Your task to perform on an android device: turn off priority inbox in the gmail app Image 0: 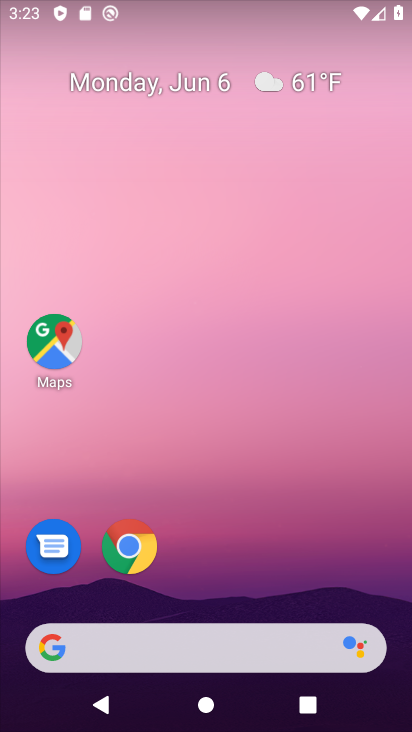
Step 0: drag from (249, 612) to (199, 207)
Your task to perform on an android device: turn off priority inbox in the gmail app Image 1: 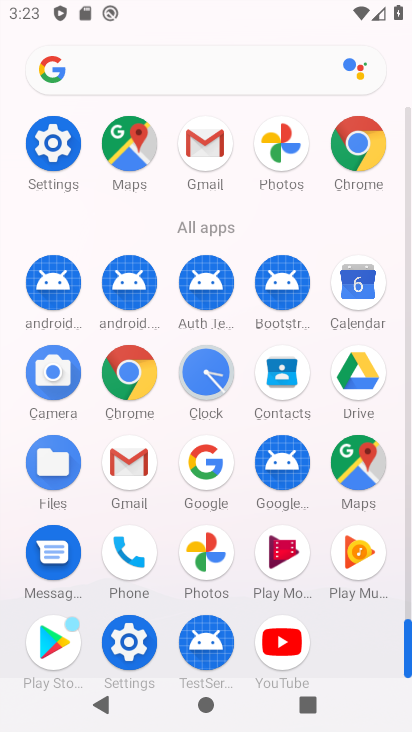
Step 1: click (213, 152)
Your task to perform on an android device: turn off priority inbox in the gmail app Image 2: 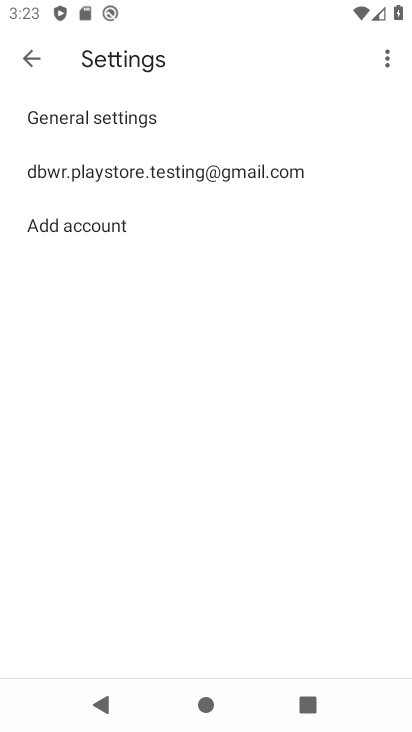
Step 2: click (112, 177)
Your task to perform on an android device: turn off priority inbox in the gmail app Image 3: 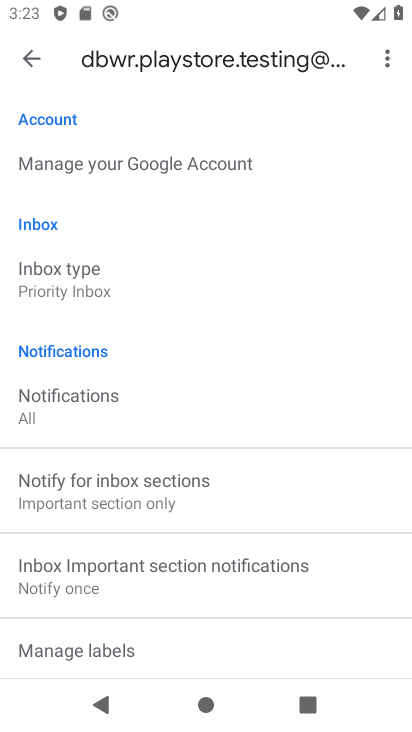
Step 3: click (72, 275)
Your task to perform on an android device: turn off priority inbox in the gmail app Image 4: 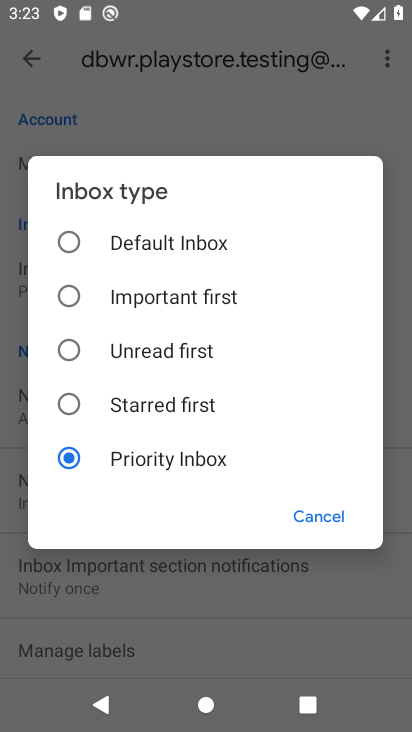
Step 4: click (76, 244)
Your task to perform on an android device: turn off priority inbox in the gmail app Image 5: 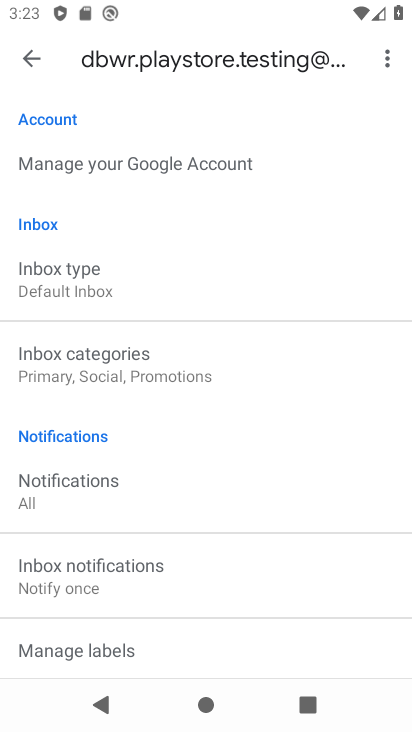
Step 5: task complete